Your task to perform on an android device: check storage Image 0: 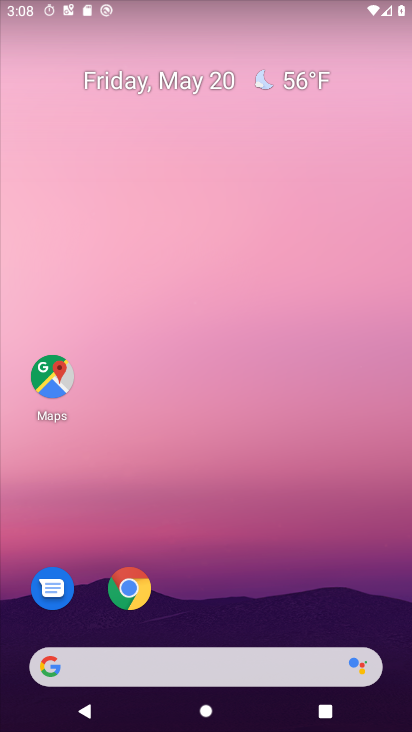
Step 0: press home button
Your task to perform on an android device: check storage Image 1: 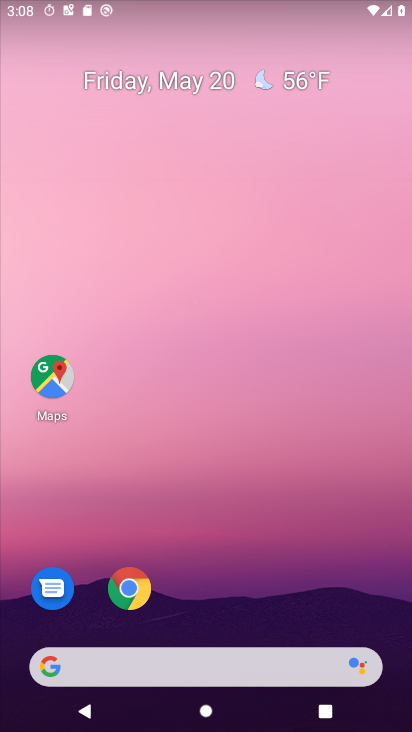
Step 1: drag from (53, 497) to (195, 211)
Your task to perform on an android device: check storage Image 2: 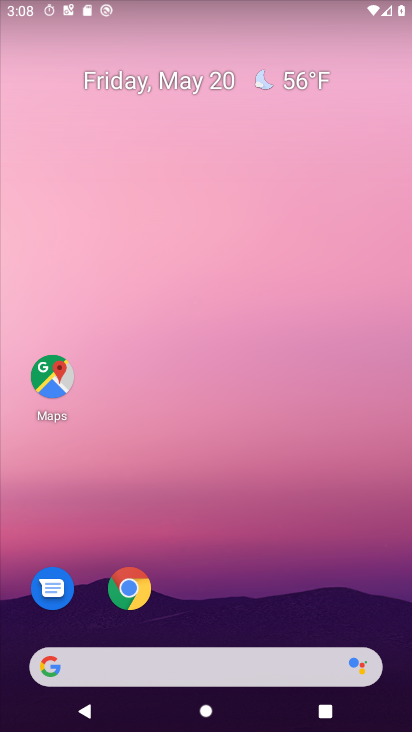
Step 2: drag from (35, 542) to (229, 141)
Your task to perform on an android device: check storage Image 3: 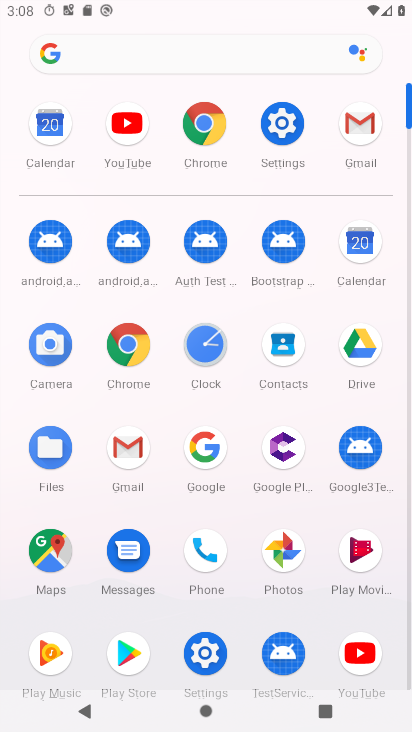
Step 3: click (270, 129)
Your task to perform on an android device: check storage Image 4: 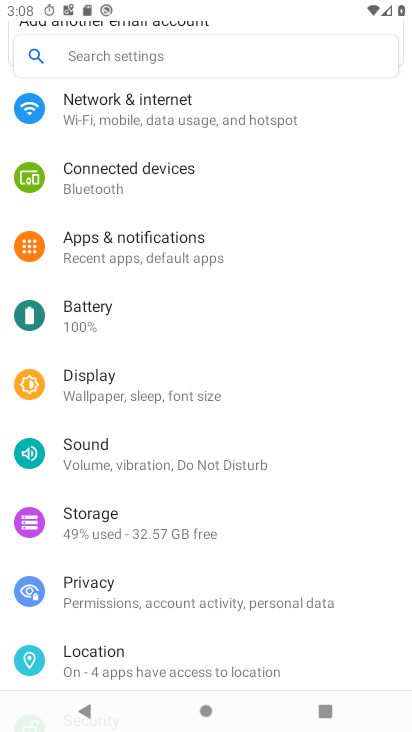
Step 4: click (95, 516)
Your task to perform on an android device: check storage Image 5: 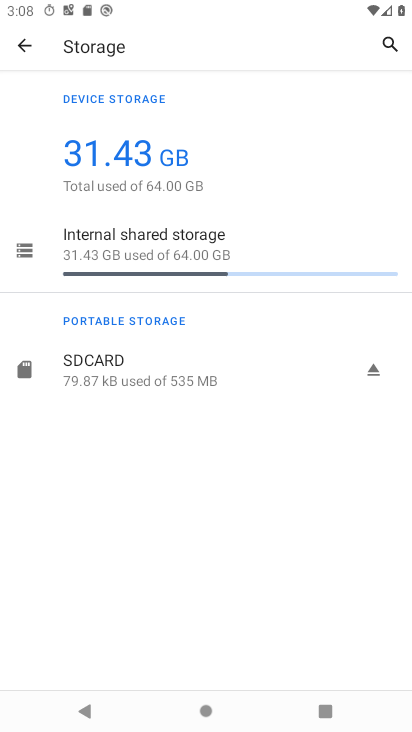
Step 5: task complete